Your task to perform on an android device: Open Amazon Image 0: 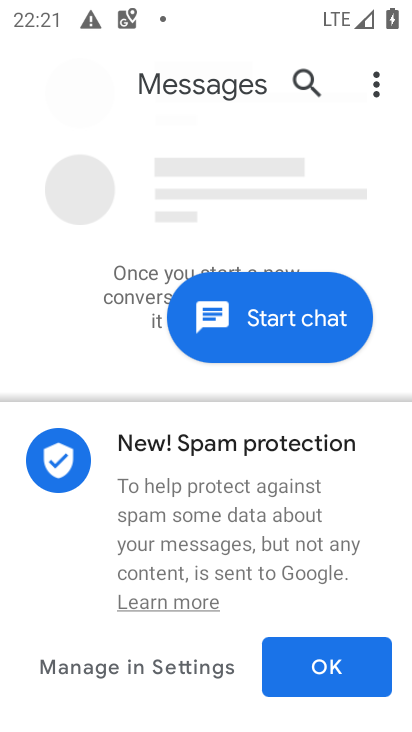
Step 0: press back button
Your task to perform on an android device: Open Amazon Image 1: 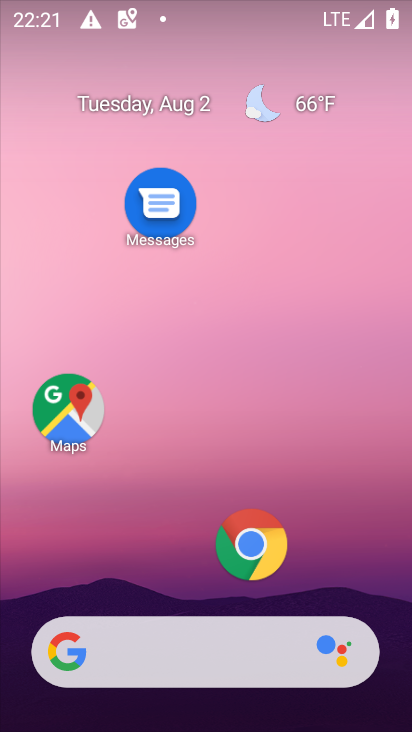
Step 1: click (252, 544)
Your task to perform on an android device: Open Amazon Image 2: 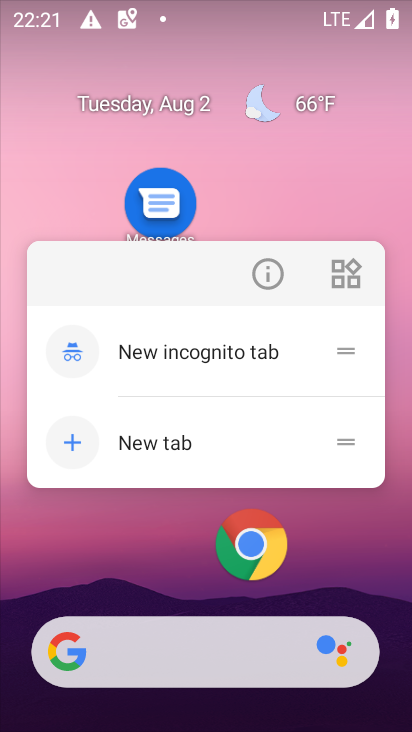
Step 2: click (260, 538)
Your task to perform on an android device: Open Amazon Image 3: 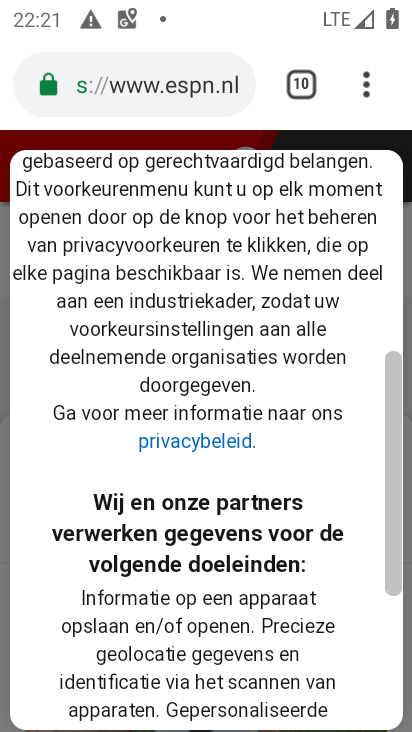
Step 3: click (307, 74)
Your task to perform on an android device: Open Amazon Image 4: 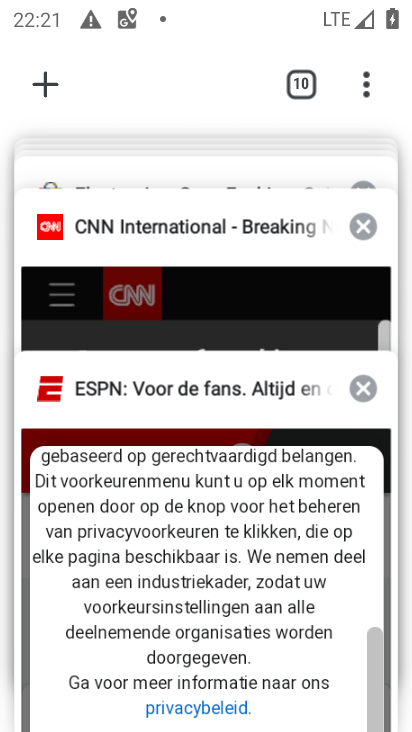
Step 4: click (51, 73)
Your task to perform on an android device: Open Amazon Image 5: 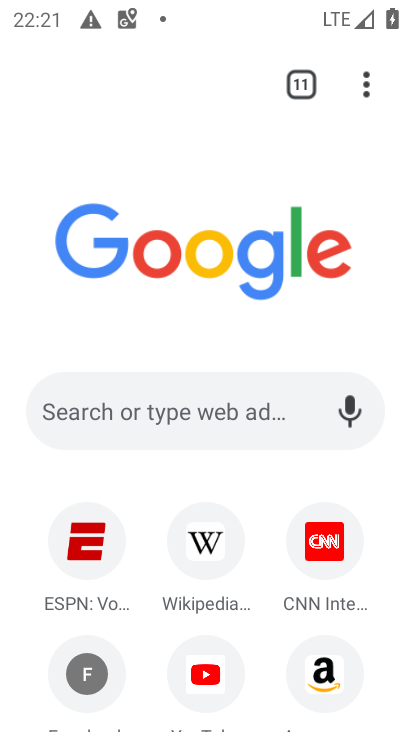
Step 5: click (310, 653)
Your task to perform on an android device: Open Amazon Image 6: 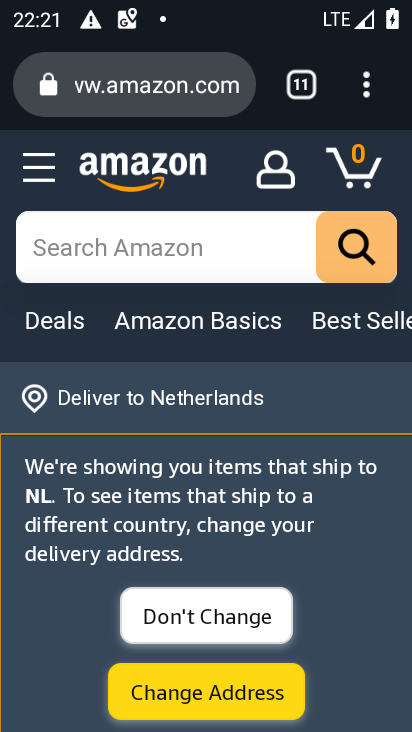
Step 6: task complete